Your task to perform on an android device: remove spam from my inbox in the gmail app Image 0: 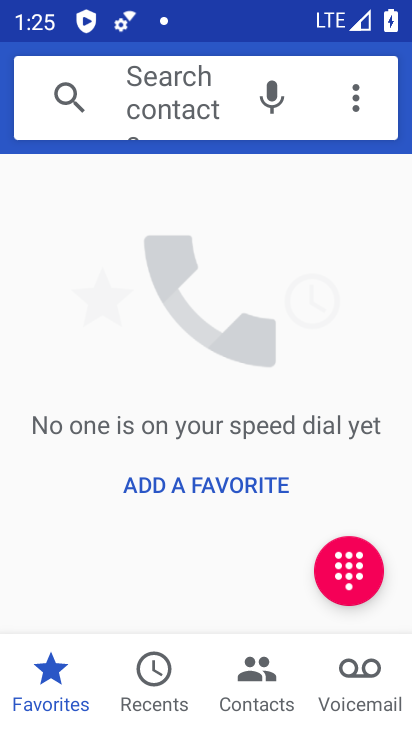
Step 0: press back button
Your task to perform on an android device: remove spam from my inbox in the gmail app Image 1: 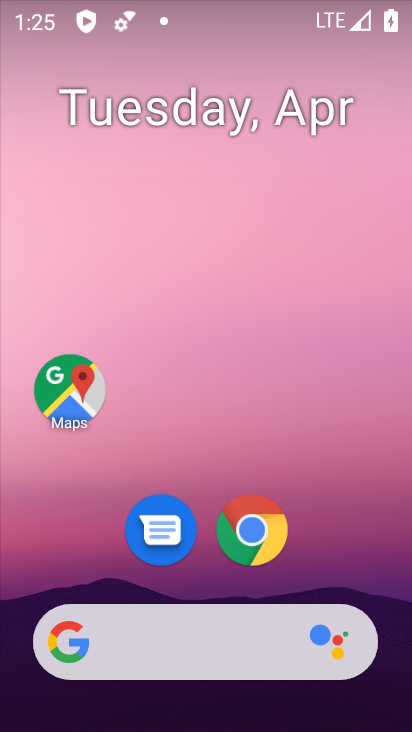
Step 1: drag from (208, 688) to (183, 15)
Your task to perform on an android device: remove spam from my inbox in the gmail app Image 2: 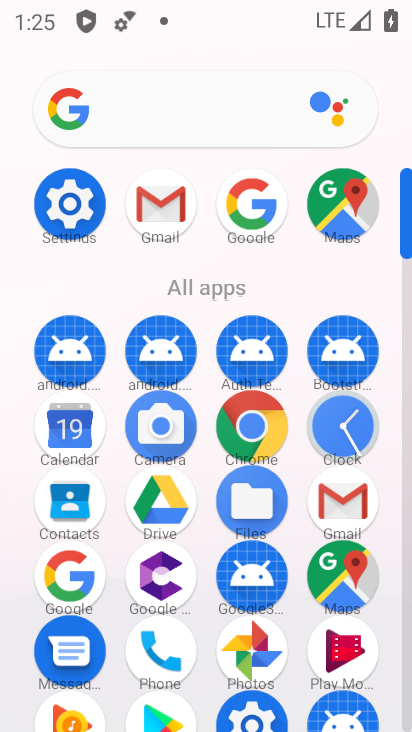
Step 2: click (341, 493)
Your task to perform on an android device: remove spam from my inbox in the gmail app Image 3: 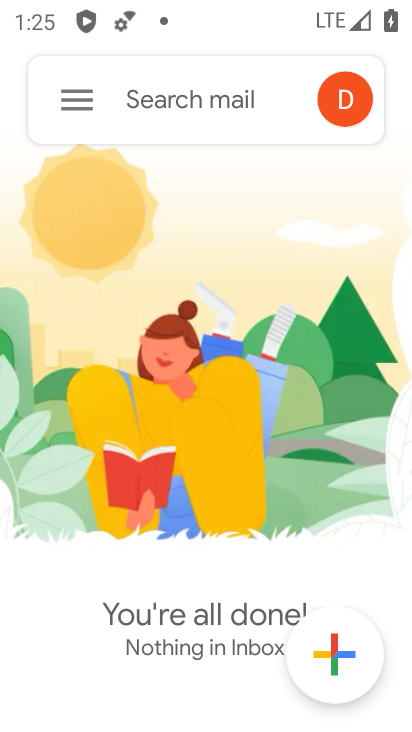
Step 3: task complete